Your task to perform on an android device: Go to Yahoo.com Image 0: 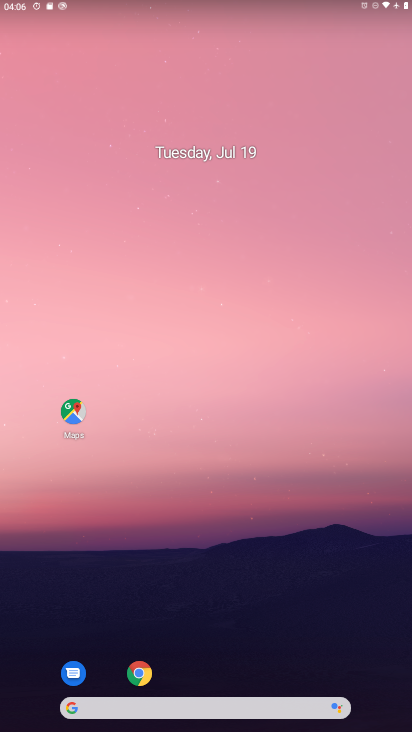
Step 0: click (138, 673)
Your task to perform on an android device: Go to Yahoo.com Image 1: 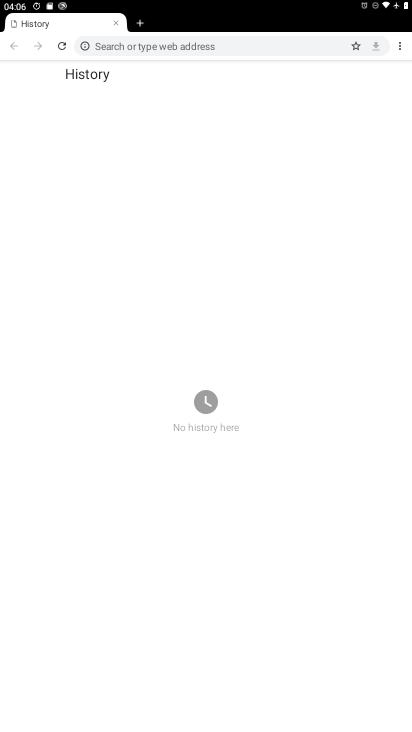
Step 1: click (210, 42)
Your task to perform on an android device: Go to Yahoo.com Image 2: 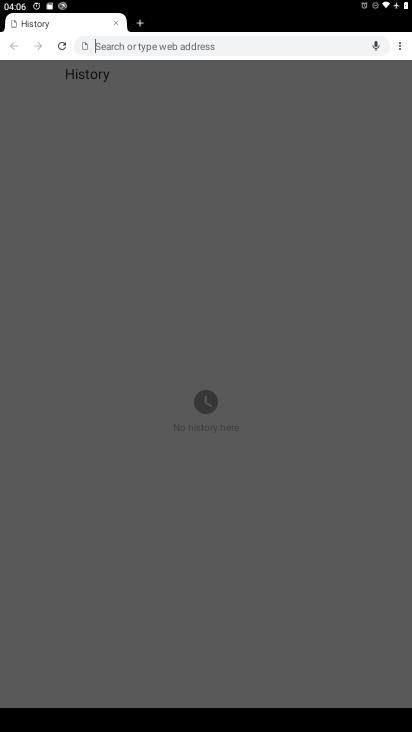
Step 2: type "yahoo.com"
Your task to perform on an android device: Go to Yahoo.com Image 3: 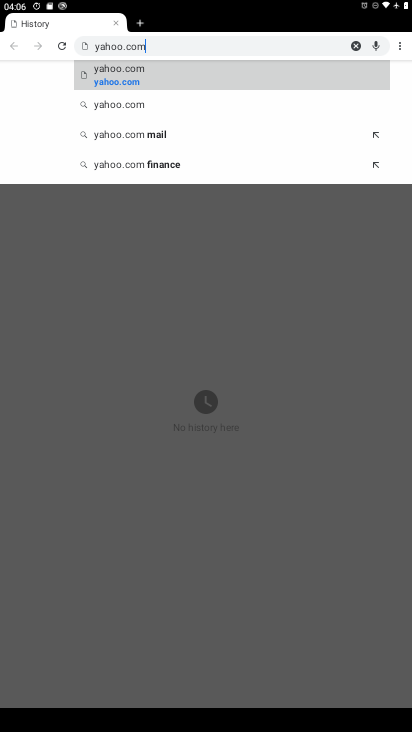
Step 3: click (119, 75)
Your task to perform on an android device: Go to Yahoo.com Image 4: 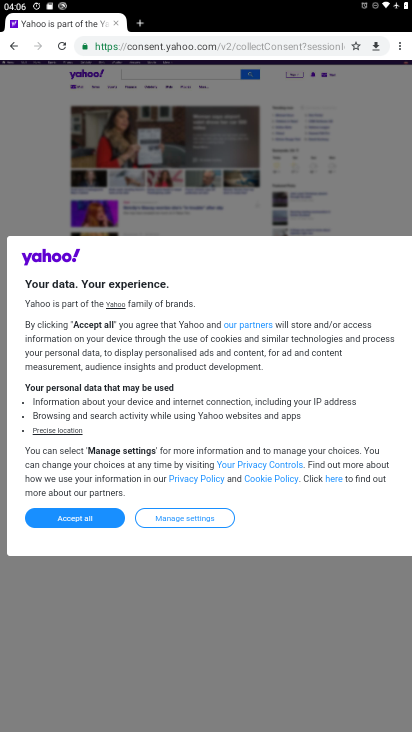
Step 4: task complete